Your task to perform on an android device: create a new album in the google photos Image 0: 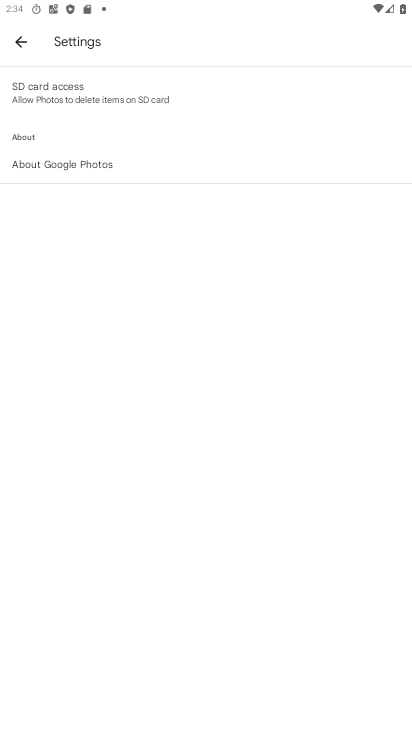
Step 0: press home button
Your task to perform on an android device: create a new album in the google photos Image 1: 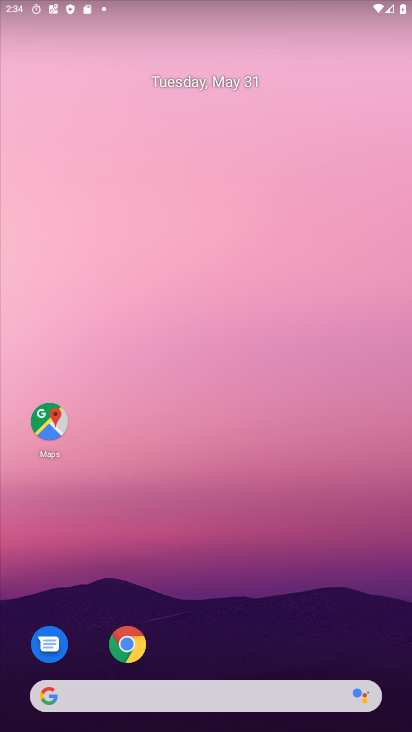
Step 1: drag from (388, 665) to (275, 101)
Your task to perform on an android device: create a new album in the google photos Image 2: 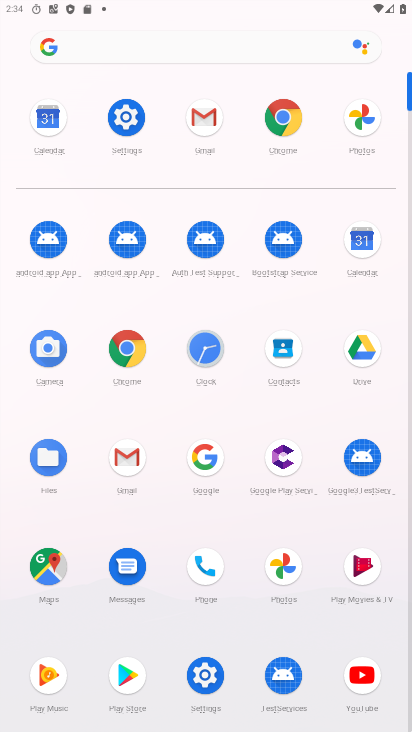
Step 2: click (348, 121)
Your task to perform on an android device: create a new album in the google photos Image 3: 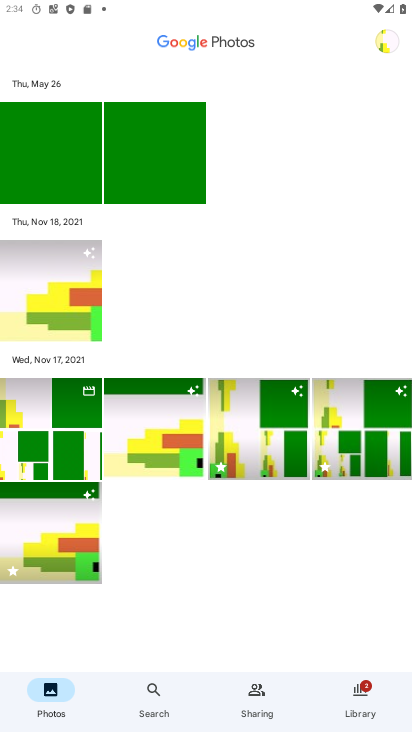
Step 3: press back button
Your task to perform on an android device: create a new album in the google photos Image 4: 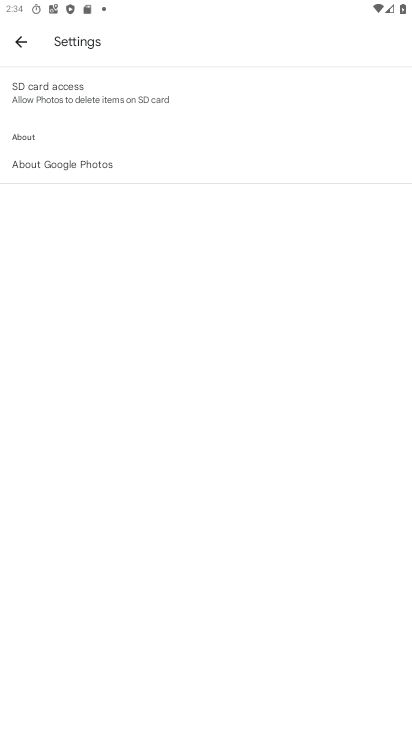
Step 4: click (20, 36)
Your task to perform on an android device: create a new album in the google photos Image 5: 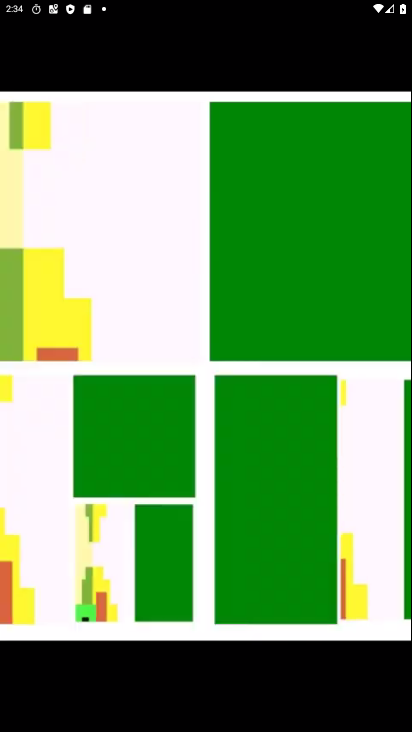
Step 5: press back button
Your task to perform on an android device: create a new album in the google photos Image 6: 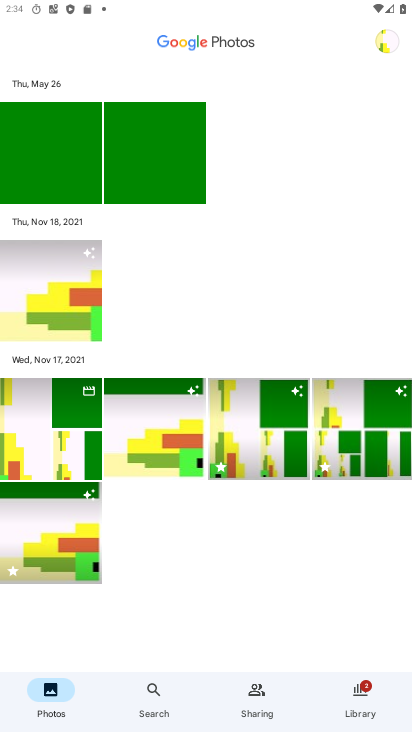
Step 6: press back button
Your task to perform on an android device: create a new album in the google photos Image 7: 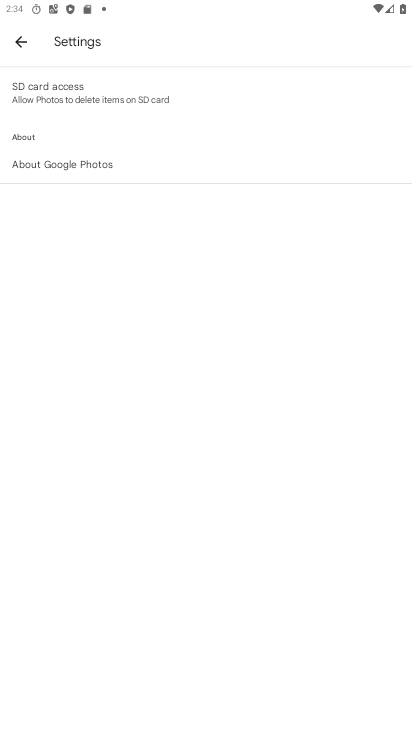
Step 7: press back button
Your task to perform on an android device: create a new album in the google photos Image 8: 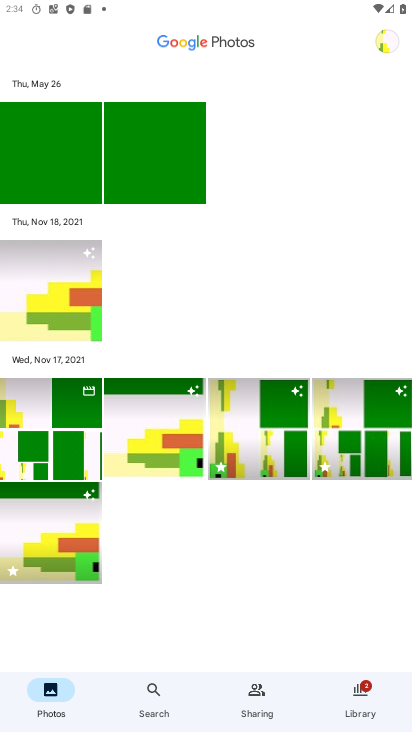
Step 8: click (387, 54)
Your task to perform on an android device: create a new album in the google photos Image 9: 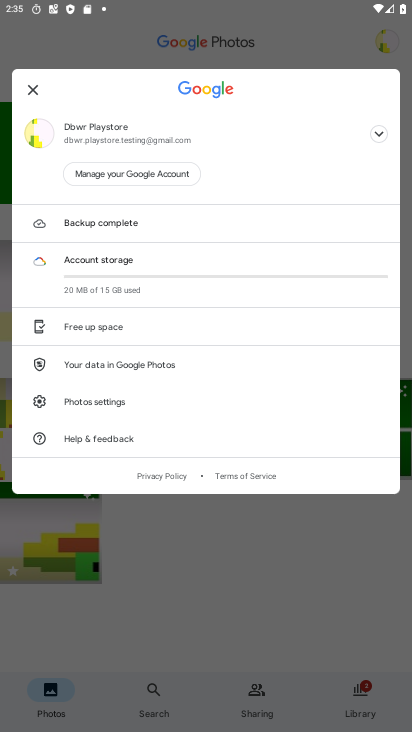
Step 9: task complete